Your task to perform on an android device: Open battery settings Image 0: 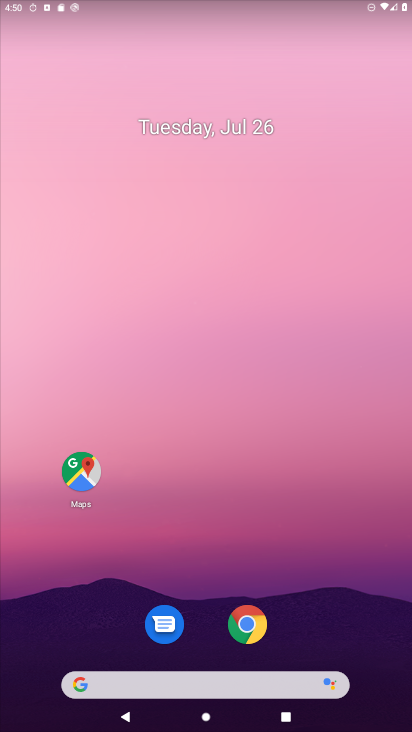
Step 0: drag from (218, 642) to (290, 8)
Your task to perform on an android device: Open battery settings Image 1: 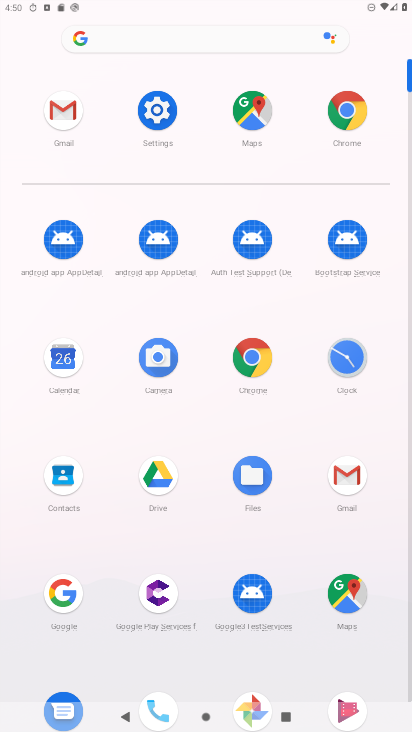
Step 1: click (146, 110)
Your task to perform on an android device: Open battery settings Image 2: 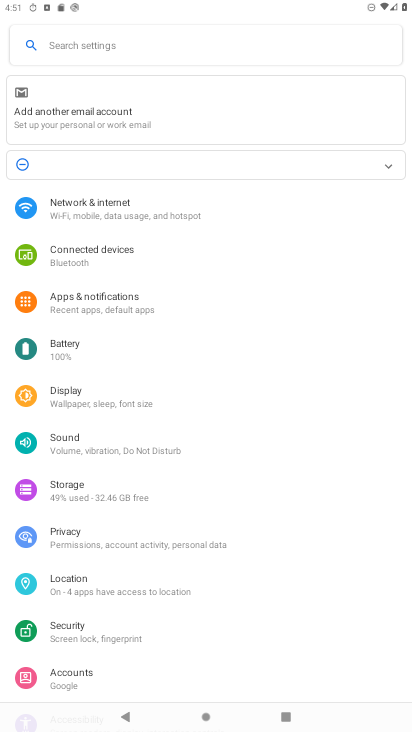
Step 2: click (69, 347)
Your task to perform on an android device: Open battery settings Image 3: 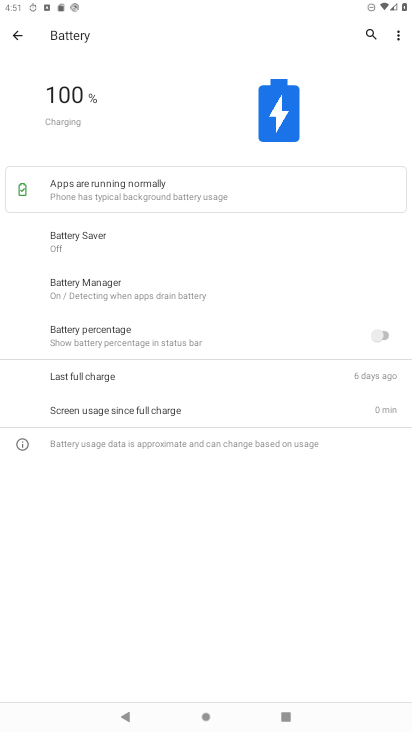
Step 3: task complete